Your task to perform on an android device: visit the assistant section in the google photos Image 0: 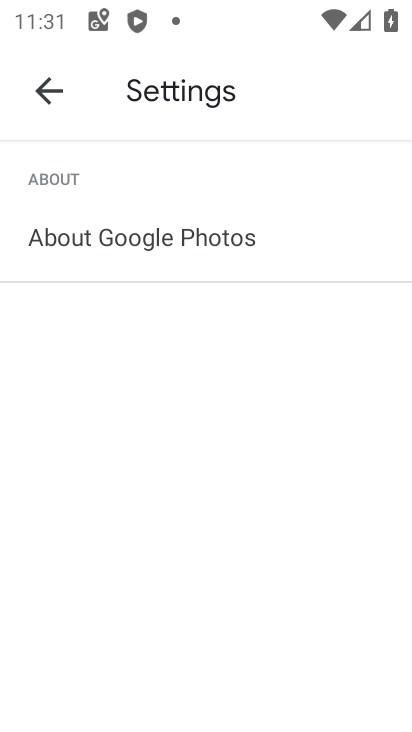
Step 0: click (63, 89)
Your task to perform on an android device: visit the assistant section in the google photos Image 1: 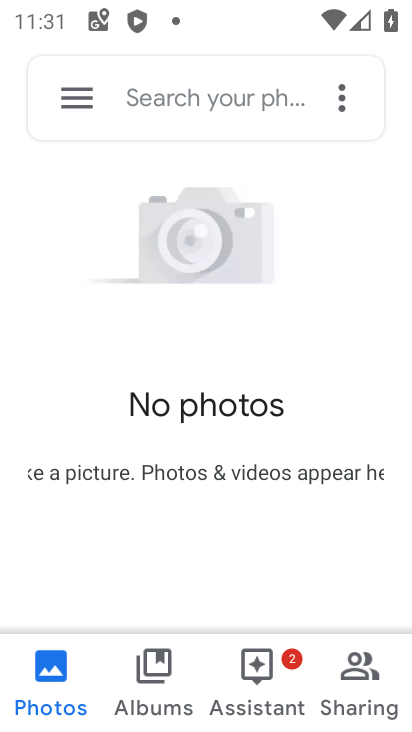
Step 1: press back button
Your task to perform on an android device: visit the assistant section in the google photos Image 2: 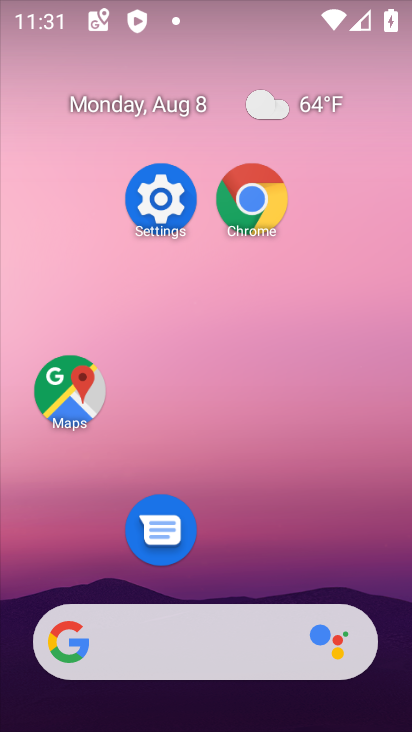
Step 2: drag from (190, 578) to (117, 96)
Your task to perform on an android device: visit the assistant section in the google photos Image 3: 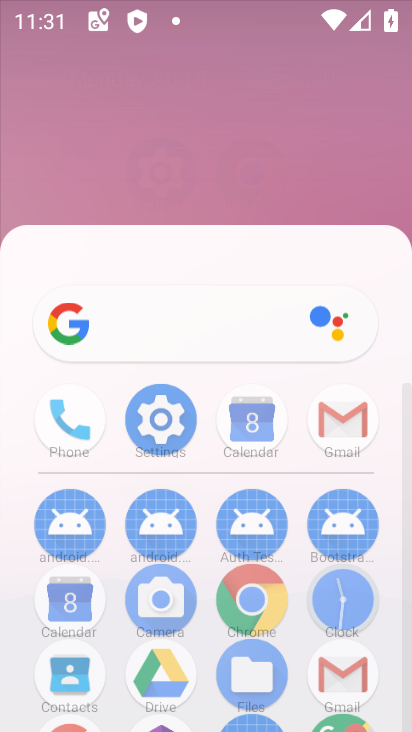
Step 3: drag from (184, 462) to (198, 265)
Your task to perform on an android device: visit the assistant section in the google photos Image 4: 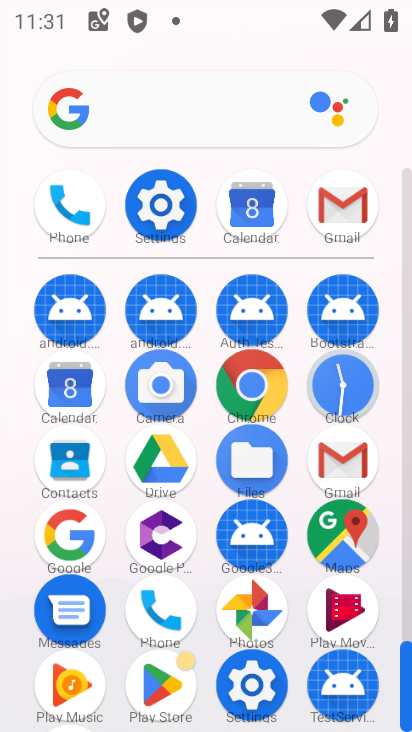
Step 4: click (258, 609)
Your task to perform on an android device: visit the assistant section in the google photos Image 5: 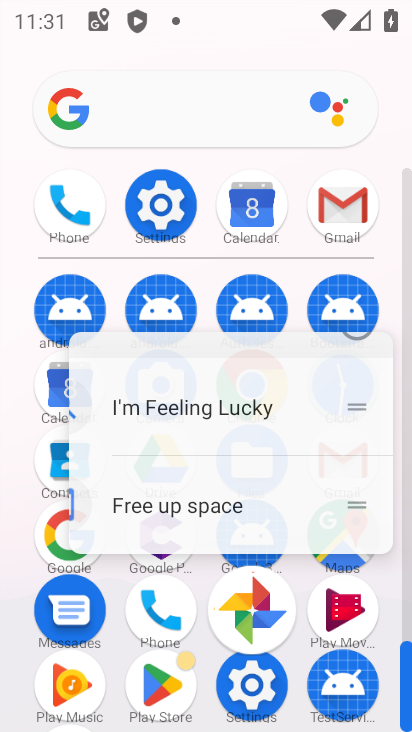
Step 5: click (258, 609)
Your task to perform on an android device: visit the assistant section in the google photos Image 6: 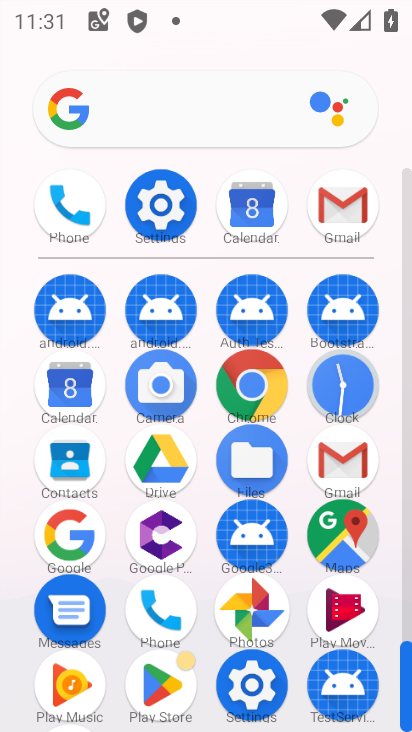
Step 6: click (263, 607)
Your task to perform on an android device: visit the assistant section in the google photos Image 7: 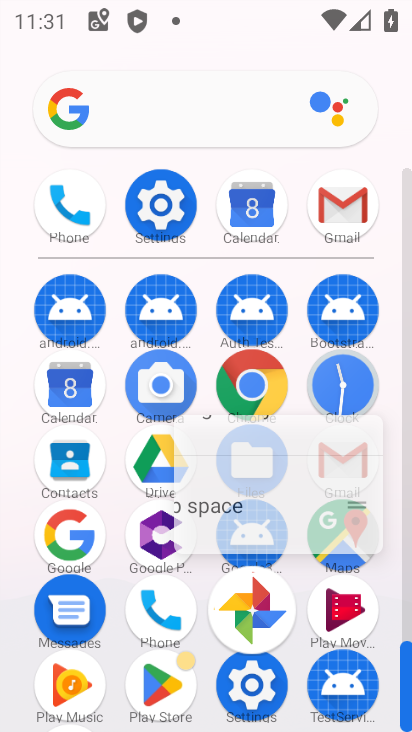
Step 7: click (264, 606)
Your task to perform on an android device: visit the assistant section in the google photos Image 8: 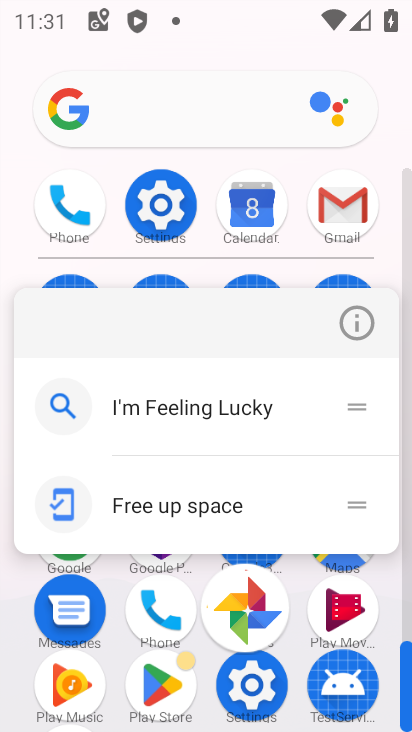
Step 8: click (253, 602)
Your task to perform on an android device: visit the assistant section in the google photos Image 9: 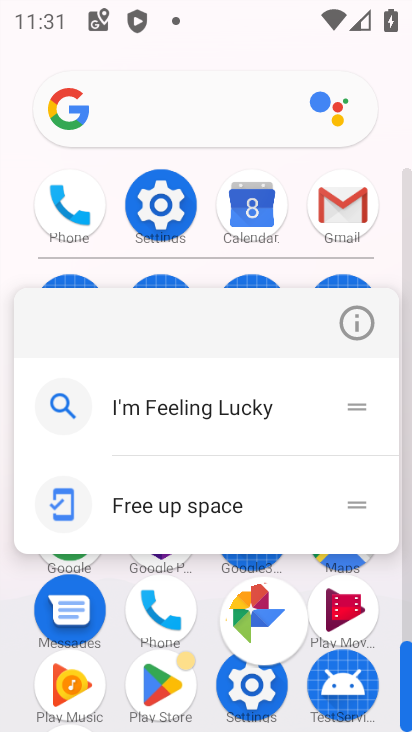
Step 9: click (264, 614)
Your task to perform on an android device: visit the assistant section in the google photos Image 10: 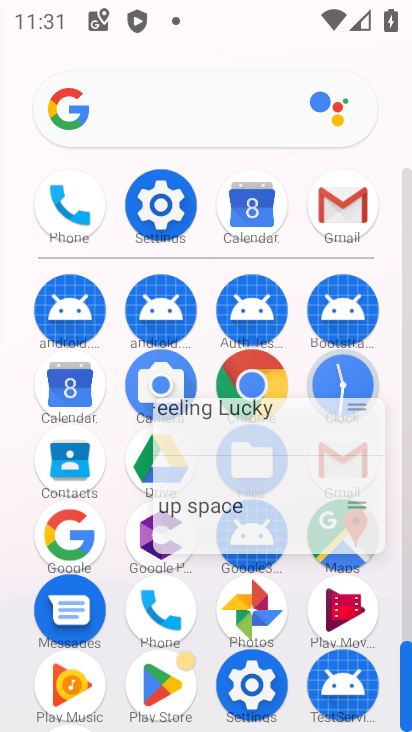
Step 10: click (259, 616)
Your task to perform on an android device: visit the assistant section in the google photos Image 11: 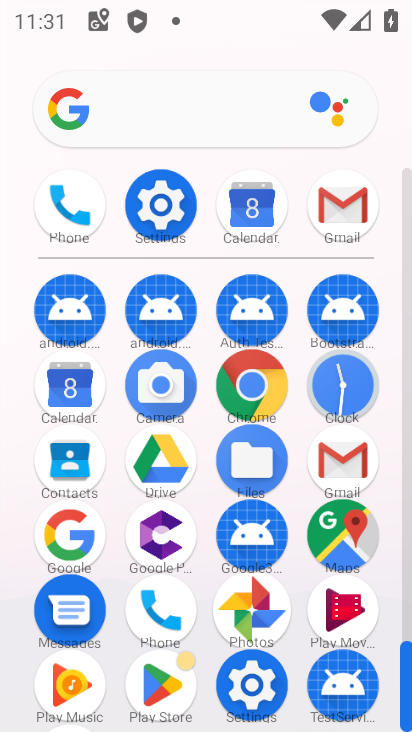
Step 11: click (260, 618)
Your task to perform on an android device: visit the assistant section in the google photos Image 12: 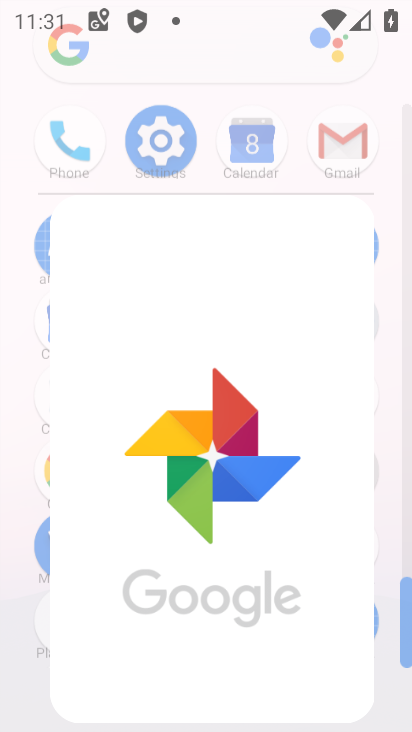
Step 12: click (262, 620)
Your task to perform on an android device: visit the assistant section in the google photos Image 13: 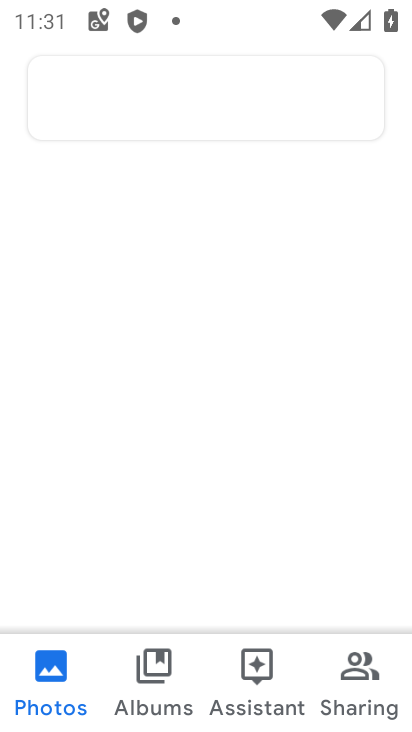
Step 13: click (280, 617)
Your task to perform on an android device: visit the assistant section in the google photos Image 14: 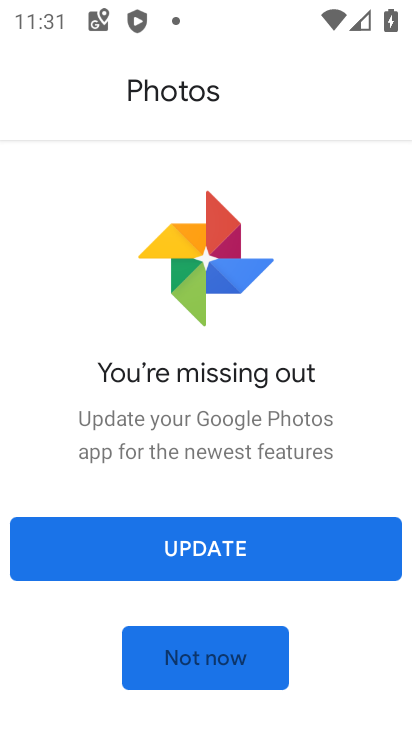
Step 14: click (154, 651)
Your task to perform on an android device: visit the assistant section in the google photos Image 15: 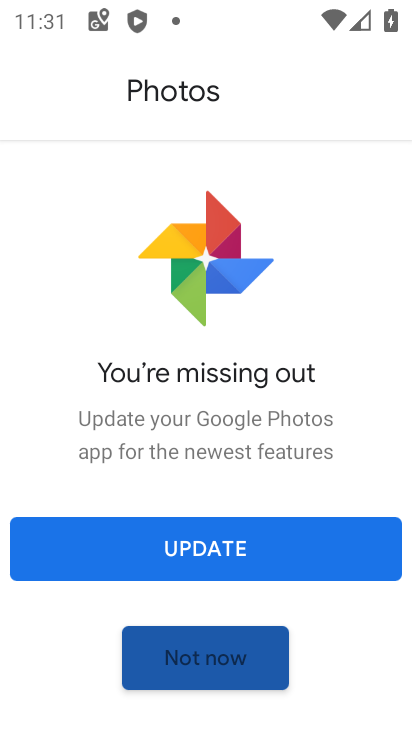
Step 15: click (154, 651)
Your task to perform on an android device: visit the assistant section in the google photos Image 16: 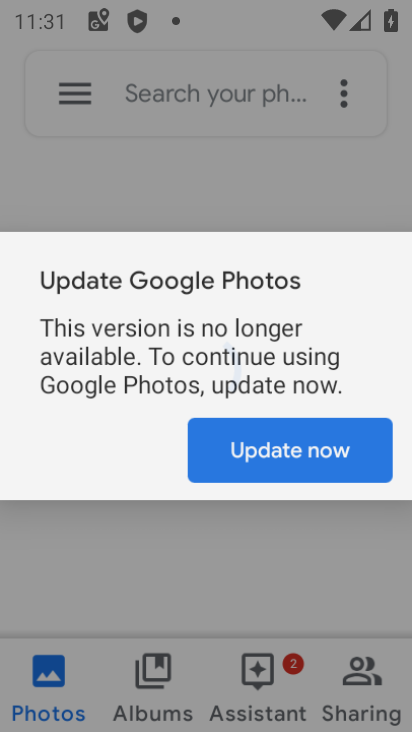
Step 16: click (156, 651)
Your task to perform on an android device: visit the assistant section in the google photos Image 17: 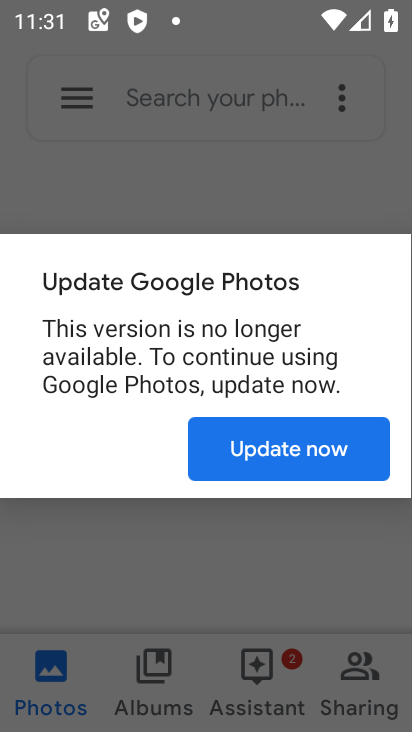
Step 17: click (159, 650)
Your task to perform on an android device: visit the assistant section in the google photos Image 18: 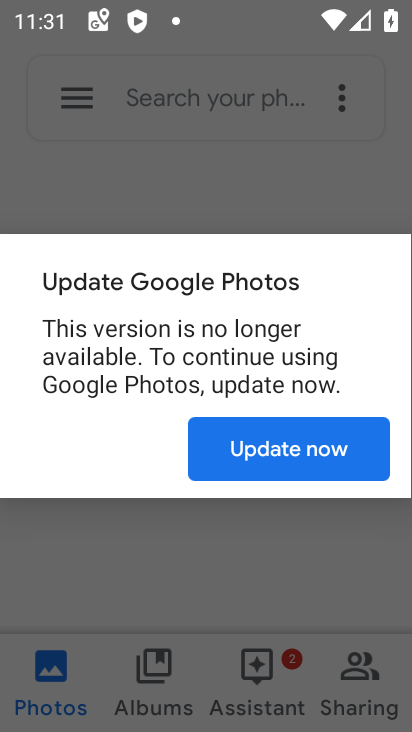
Step 18: click (264, 697)
Your task to perform on an android device: visit the assistant section in the google photos Image 19: 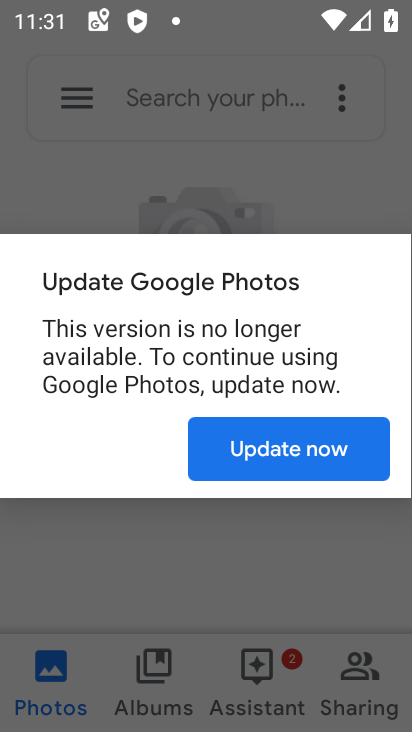
Step 19: click (264, 697)
Your task to perform on an android device: visit the assistant section in the google photos Image 20: 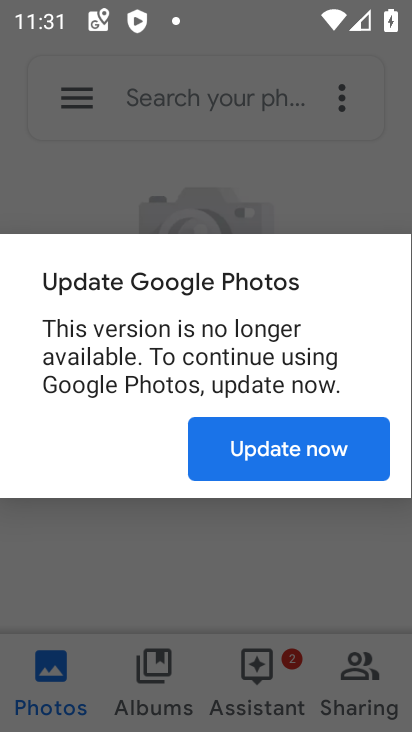
Step 20: click (261, 695)
Your task to perform on an android device: visit the assistant section in the google photos Image 21: 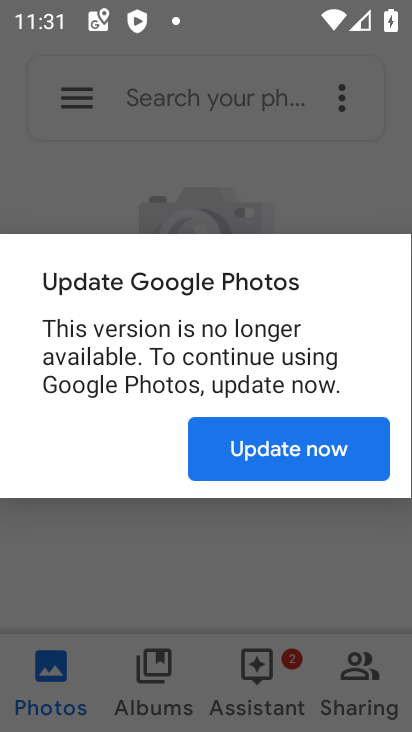
Step 21: click (262, 695)
Your task to perform on an android device: visit the assistant section in the google photos Image 22: 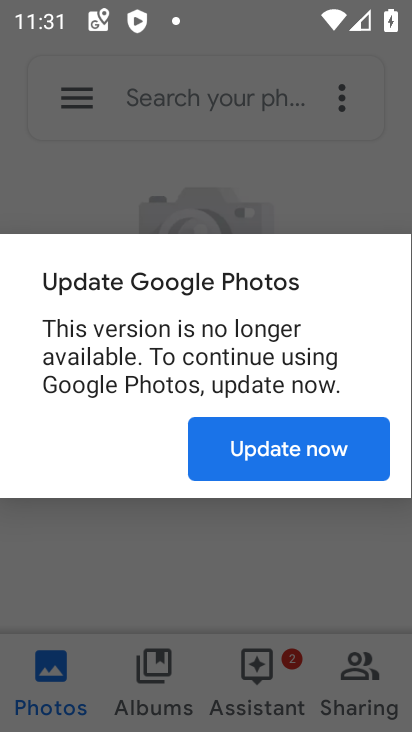
Step 22: click (262, 695)
Your task to perform on an android device: visit the assistant section in the google photos Image 23: 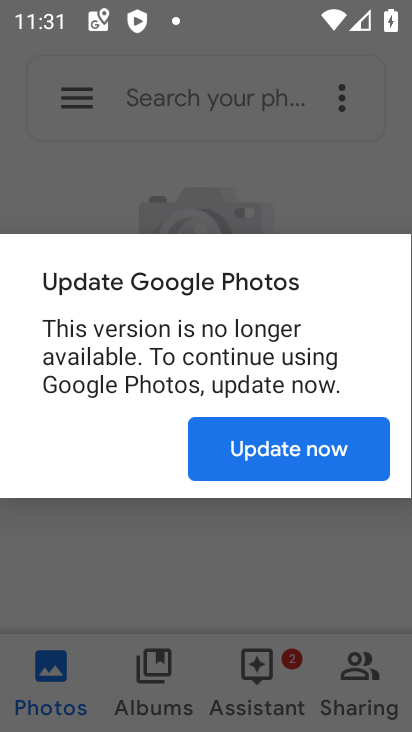
Step 23: click (255, 532)
Your task to perform on an android device: visit the assistant section in the google photos Image 24: 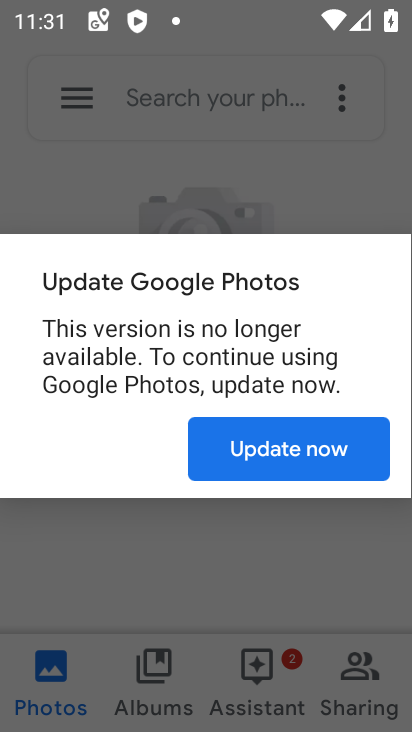
Step 24: task complete